Your task to perform on an android device: turn on translation in the chrome app Image 0: 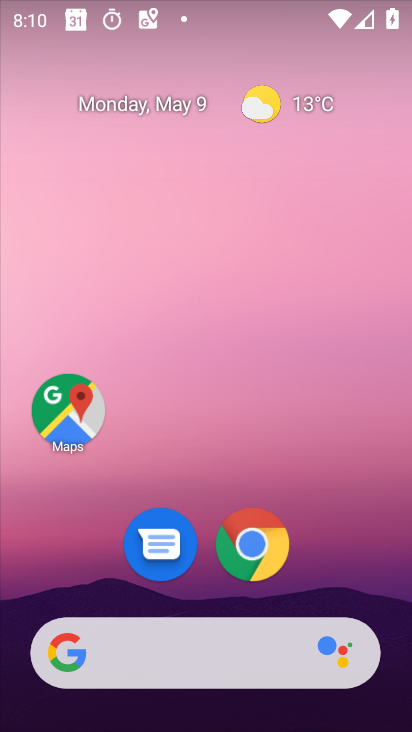
Step 0: drag from (349, 582) to (255, 81)
Your task to perform on an android device: turn on translation in the chrome app Image 1: 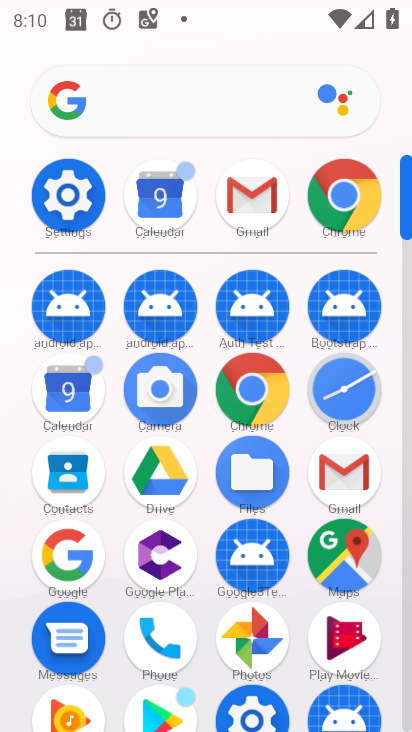
Step 1: click (367, 203)
Your task to perform on an android device: turn on translation in the chrome app Image 2: 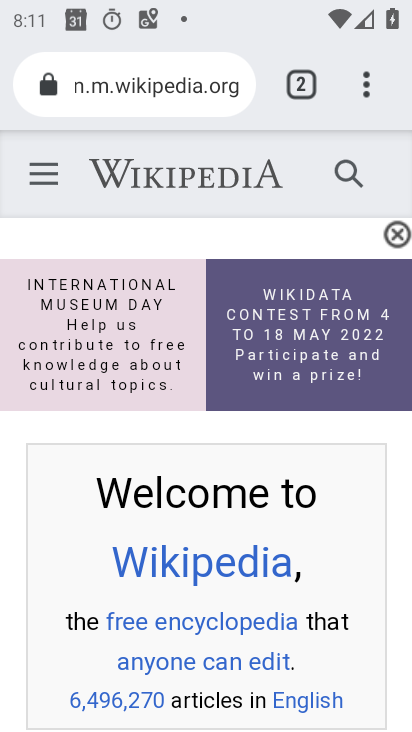
Step 2: drag from (371, 79) to (152, 588)
Your task to perform on an android device: turn on translation in the chrome app Image 3: 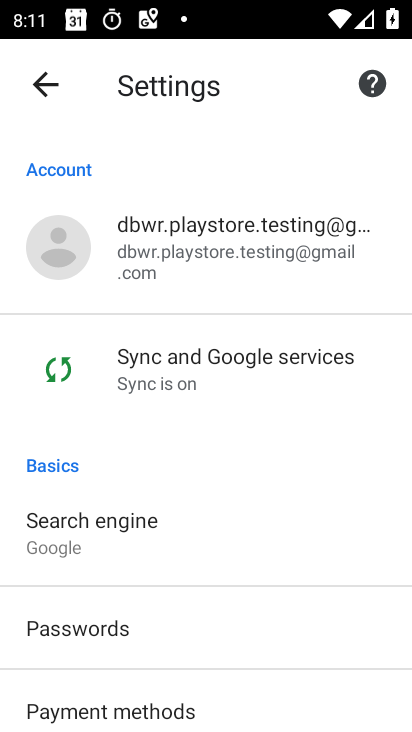
Step 3: drag from (181, 664) to (222, 224)
Your task to perform on an android device: turn on translation in the chrome app Image 4: 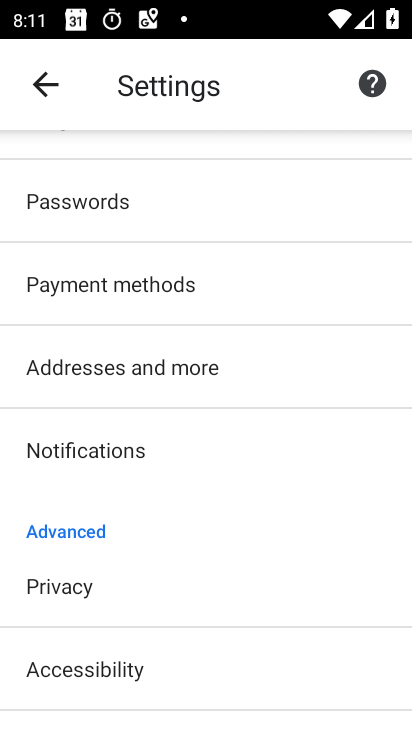
Step 4: drag from (220, 628) to (229, 317)
Your task to perform on an android device: turn on translation in the chrome app Image 5: 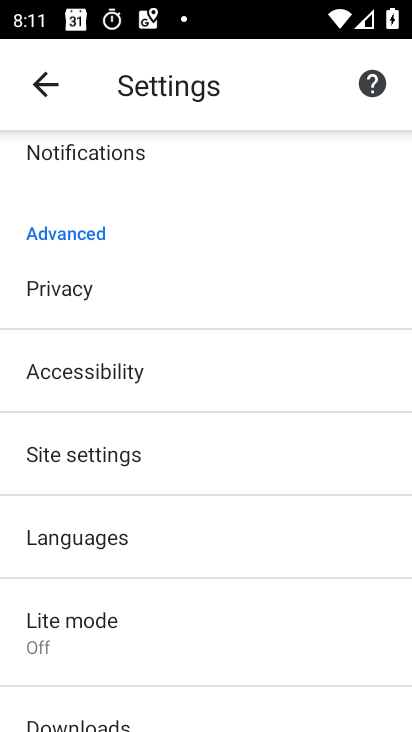
Step 5: drag from (246, 618) to (209, 290)
Your task to perform on an android device: turn on translation in the chrome app Image 6: 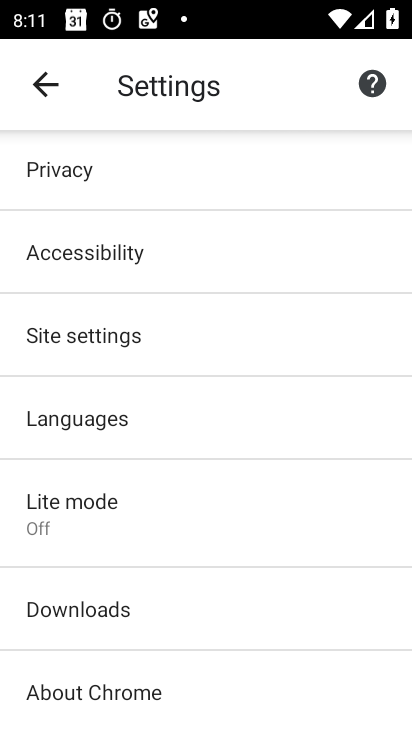
Step 6: click (157, 427)
Your task to perform on an android device: turn on translation in the chrome app Image 7: 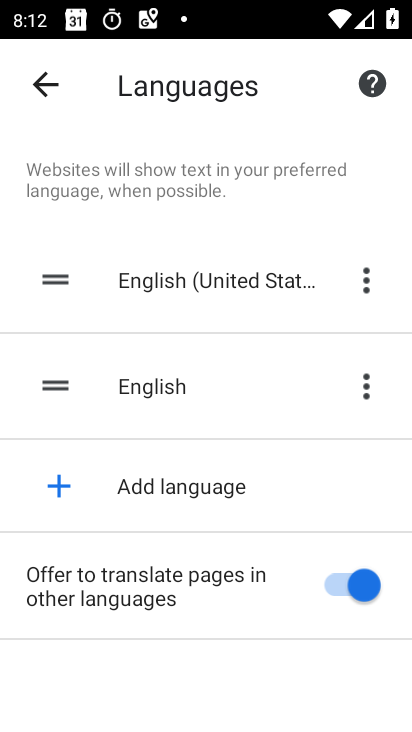
Step 7: task complete